Your task to perform on an android device: toggle wifi Image 0: 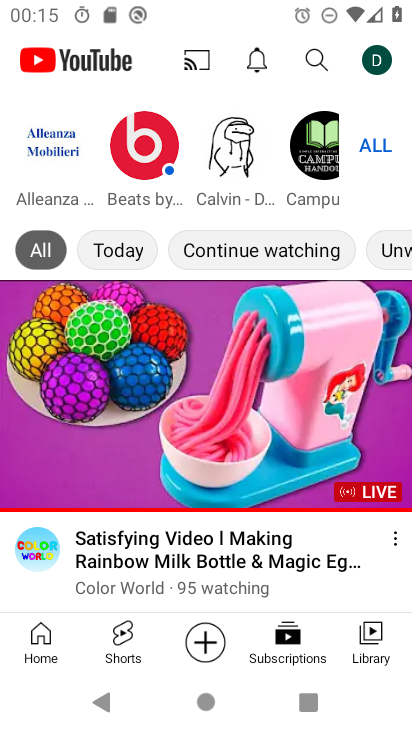
Step 0: press home button
Your task to perform on an android device: toggle wifi Image 1: 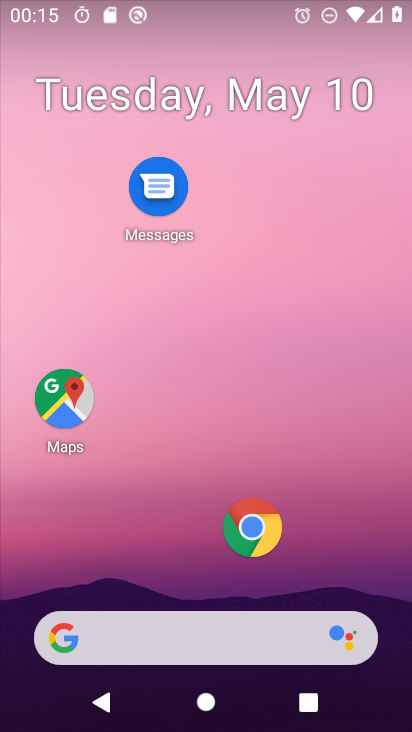
Step 1: drag from (192, 539) to (220, 58)
Your task to perform on an android device: toggle wifi Image 2: 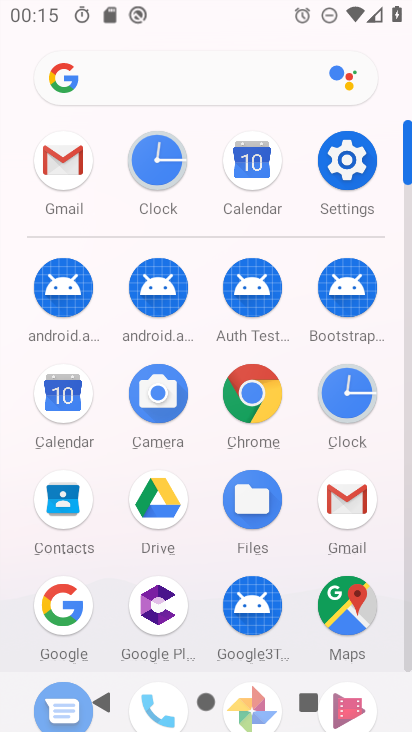
Step 2: click (345, 161)
Your task to perform on an android device: toggle wifi Image 3: 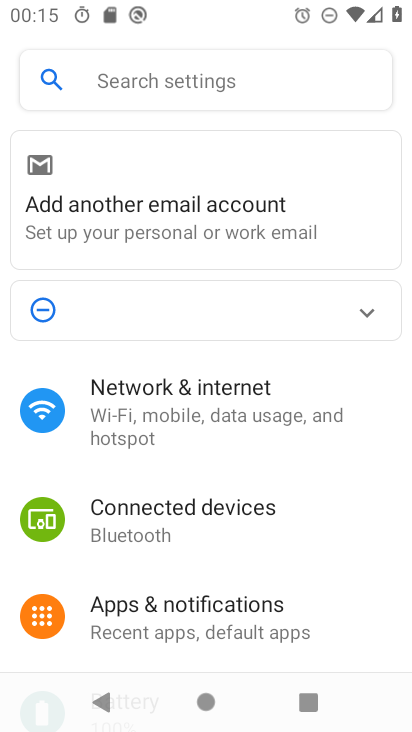
Step 3: click (166, 423)
Your task to perform on an android device: toggle wifi Image 4: 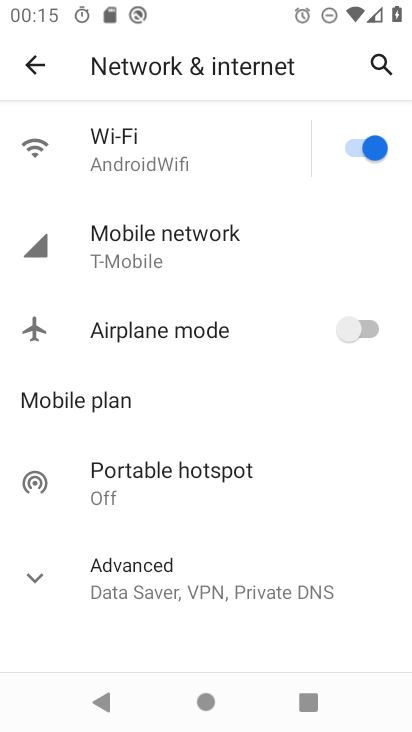
Step 4: click (374, 156)
Your task to perform on an android device: toggle wifi Image 5: 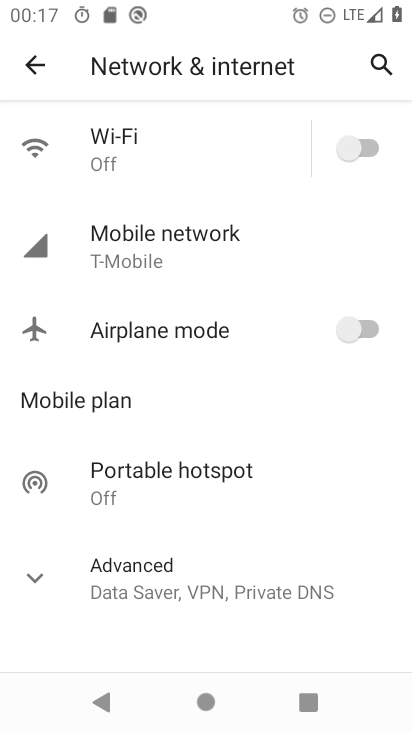
Step 5: task complete